Your task to perform on an android device: Open Google Maps and go to "Timeline" Image 0: 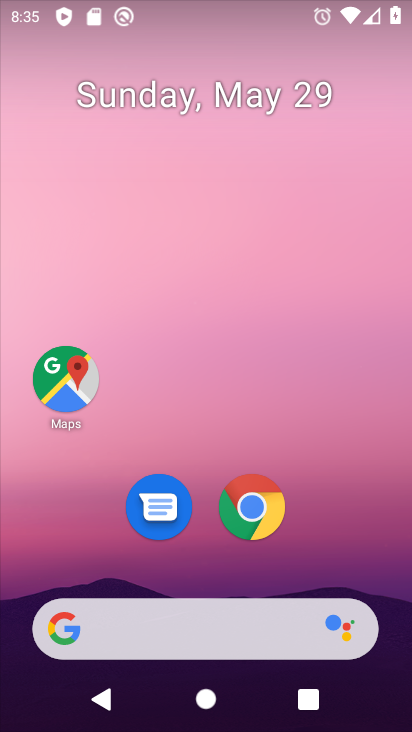
Step 0: click (55, 376)
Your task to perform on an android device: Open Google Maps and go to "Timeline" Image 1: 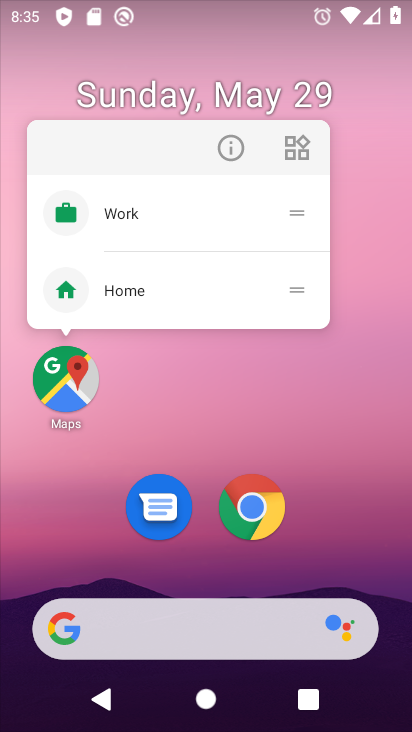
Step 1: click (62, 377)
Your task to perform on an android device: Open Google Maps and go to "Timeline" Image 2: 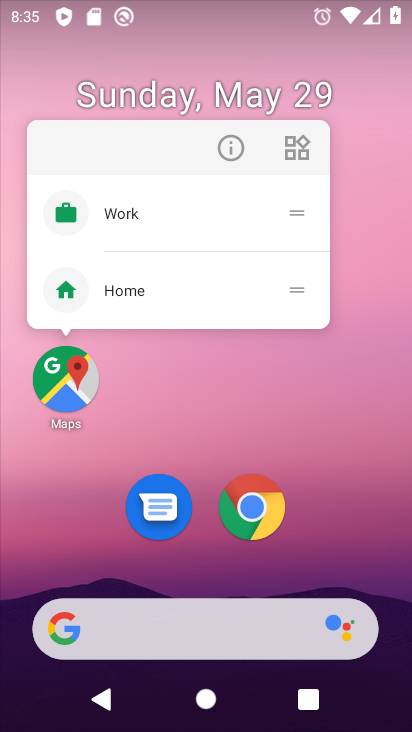
Step 2: click (63, 407)
Your task to perform on an android device: Open Google Maps and go to "Timeline" Image 3: 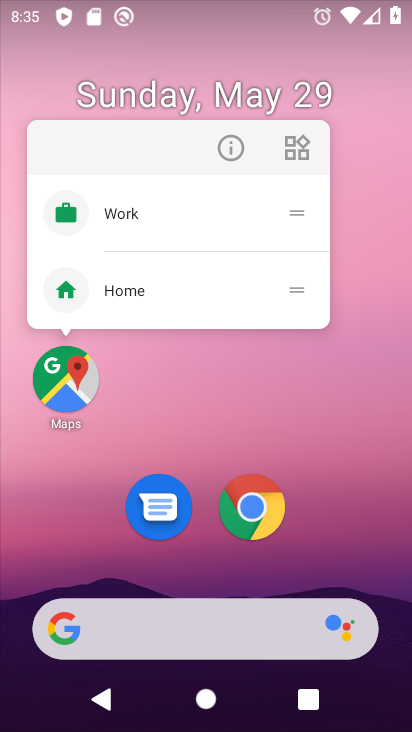
Step 3: click (80, 390)
Your task to perform on an android device: Open Google Maps and go to "Timeline" Image 4: 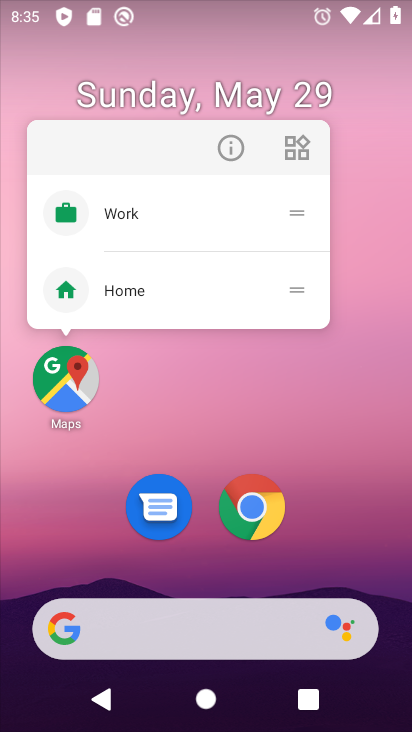
Step 4: click (66, 393)
Your task to perform on an android device: Open Google Maps and go to "Timeline" Image 5: 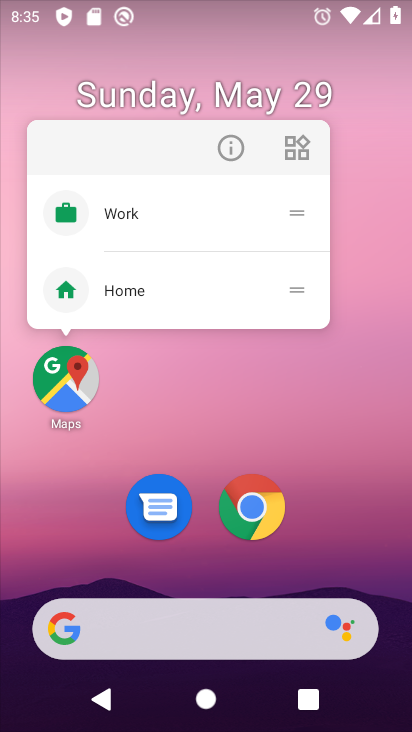
Step 5: click (67, 404)
Your task to perform on an android device: Open Google Maps and go to "Timeline" Image 6: 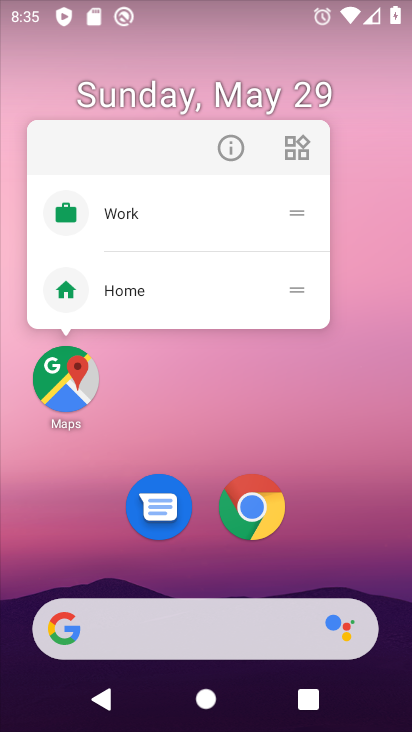
Step 6: click (73, 403)
Your task to perform on an android device: Open Google Maps and go to "Timeline" Image 7: 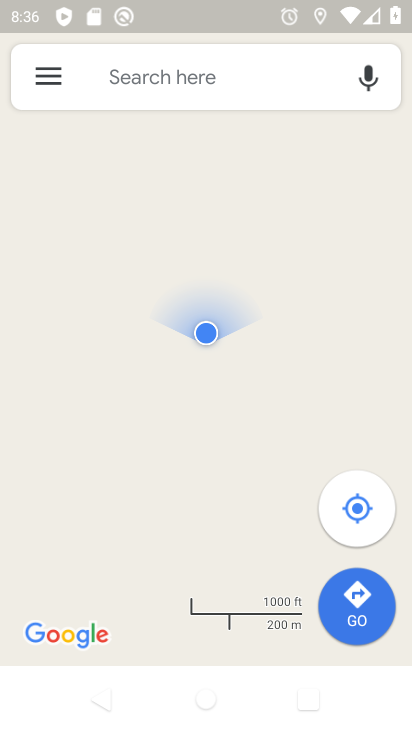
Step 7: click (66, 83)
Your task to perform on an android device: Open Google Maps and go to "Timeline" Image 8: 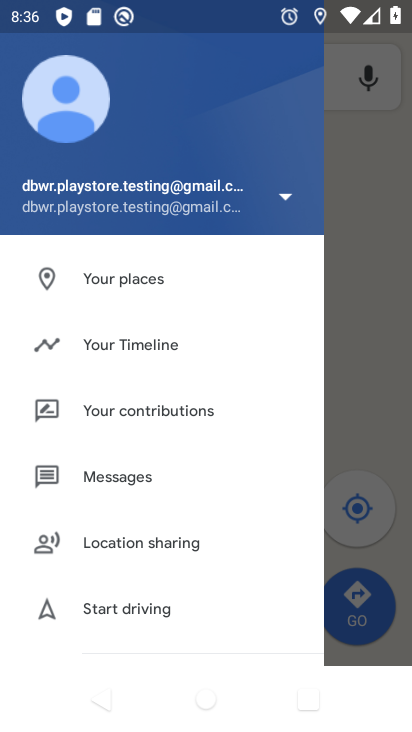
Step 8: click (166, 350)
Your task to perform on an android device: Open Google Maps and go to "Timeline" Image 9: 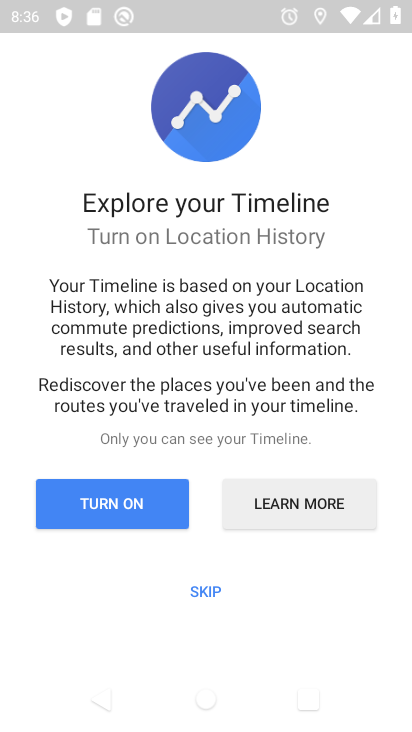
Step 9: click (214, 592)
Your task to perform on an android device: Open Google Maps and go to "Timeline" Image 10: 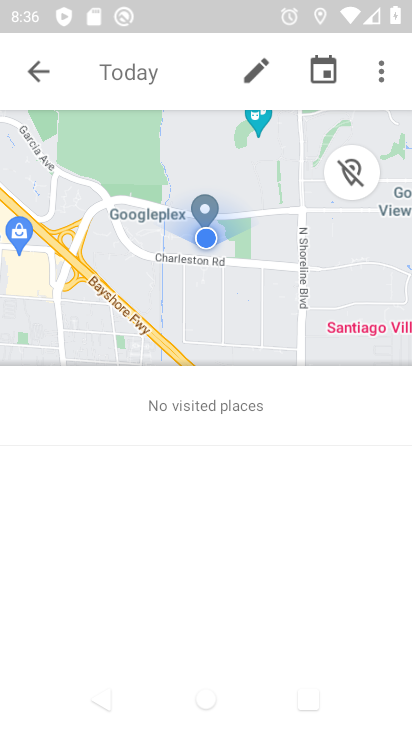
Step 10: task complete